Your task to perform on an android device: toggle priority inbox in the gmail app Image 0: 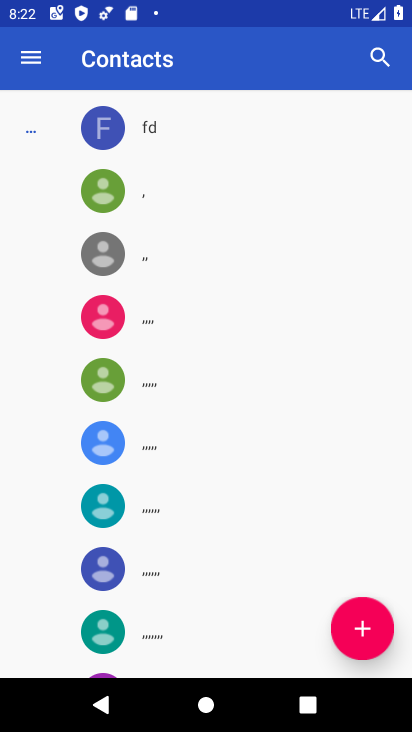
Step 0: press home button
Your task to perform on an android device: toggle priority inbox in the gmail app Image 1: 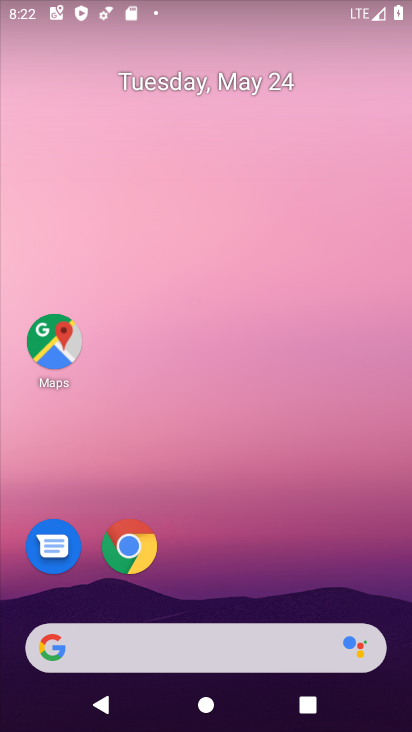
Step 1: drag from (189, 530) to (222, 32)
Your task to perform on an android device: toggle priority inbox in the gmail app Image 2: 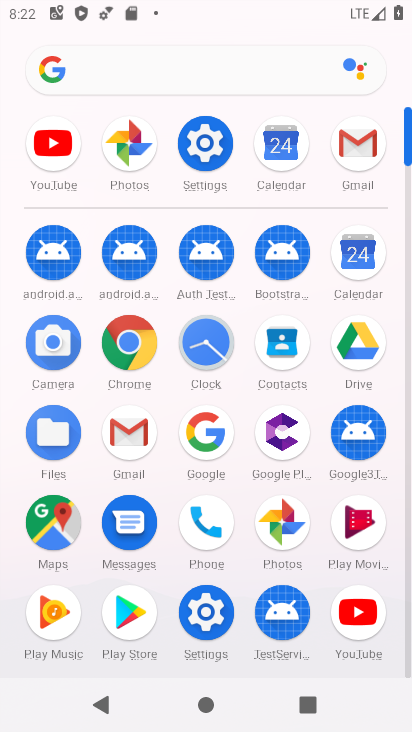
Step 2: click (348, 141)
Your task to perform on an android device: toggle priority inbox in the gmail app Image 3: 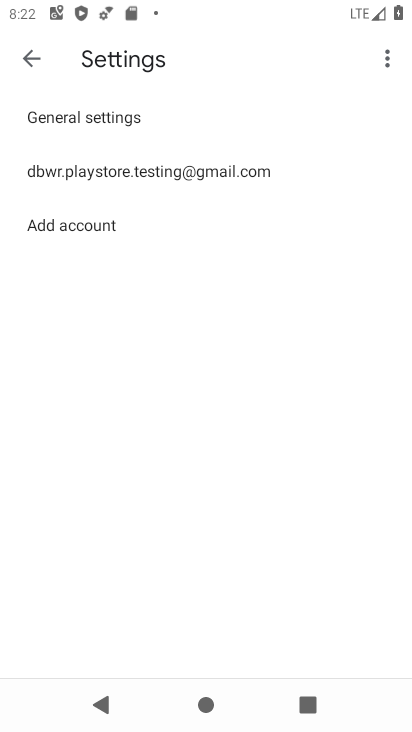
Step 3: click (256, 171)
Your task to perform on an android device: toggle priority inbox in the gmail app Image 4: 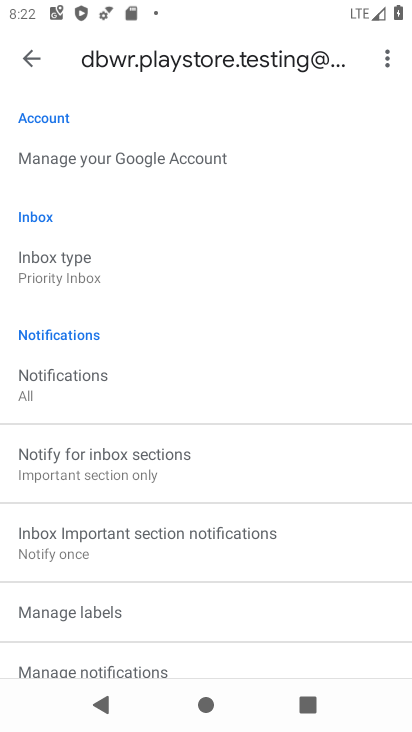
Step 4: click (83, 260)
Your task to perform on an android device: toggle priority inbox in the gmail app Image 5: 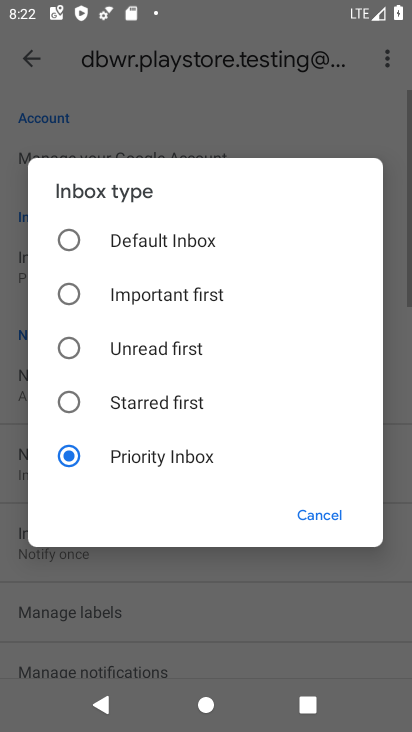
Step 5: click (73, 219)
Your task to perform on an android device: toggle priority inbox in the gmail app Image 6: 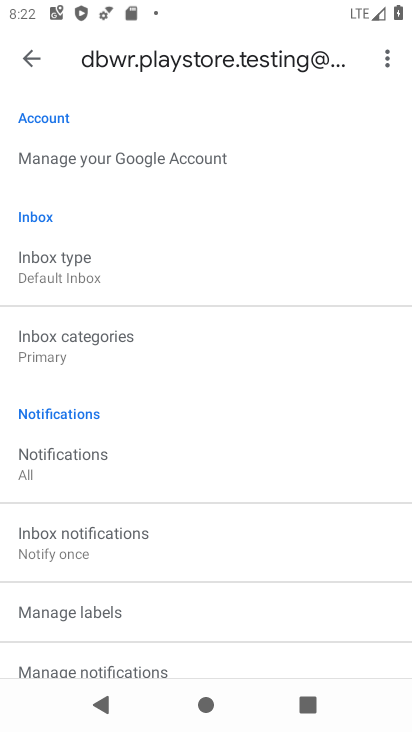
Step 6: task complete